Your task to perform on an android device: When is my next meeting? Image 0: 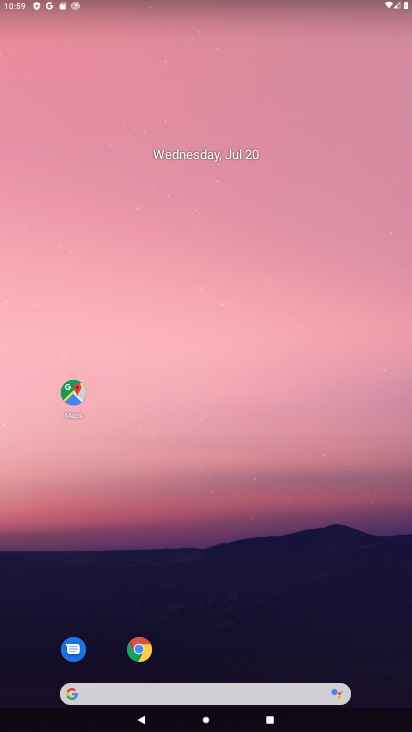
Step 0: drag from (265, 611) to (267, 327)
Your task to perform on an android device: When is my next meeting? Image 1: 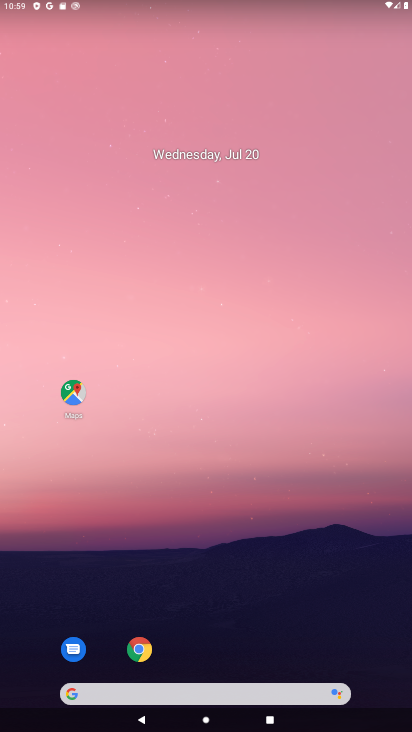
Step 1: drag from (243, 597) to (249, 282)
Your task to perform on an android device: When is my next meeting? Image 2: 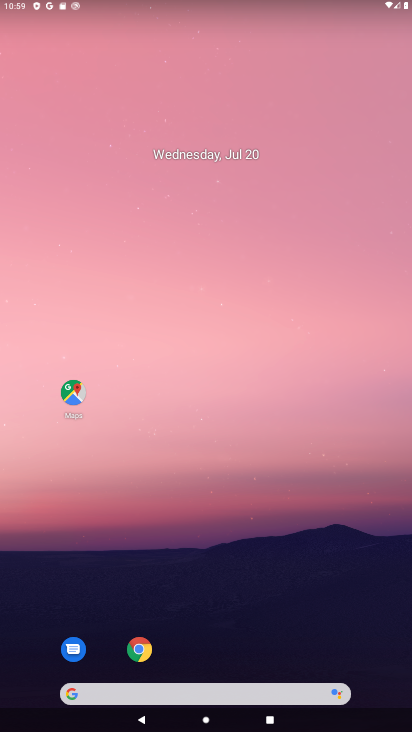
Step 2: drag from (236, 666) to (248, 260)
Your task to perform on an android device: When is my next meeting? Image 3: 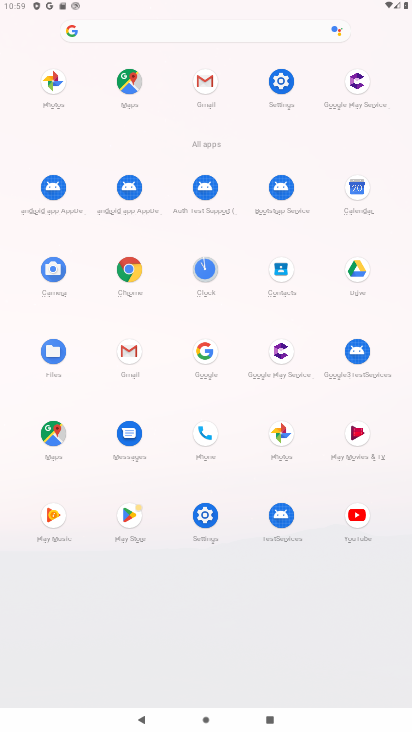
Step 3: click (354, 187)
Your task to perform on an android device: When is my next meeting? Image 4: 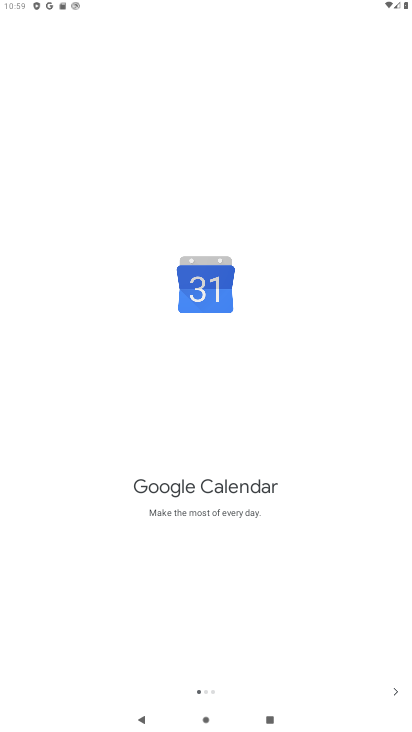
Step 4: click (389, 689)
Your task to perform on an android device: When is my next meeting? Image 5: 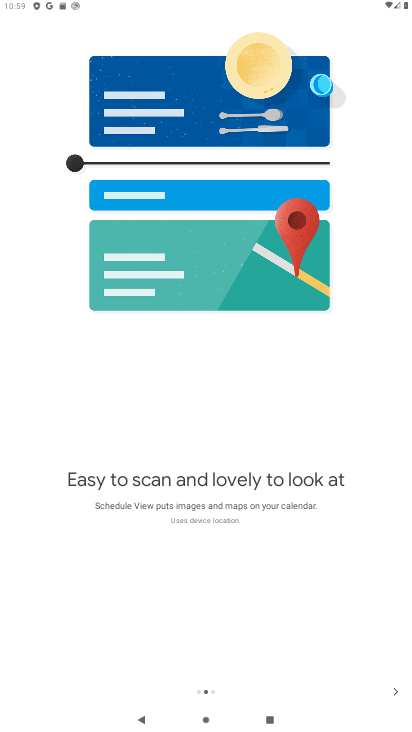
Step 5: click (389, 689)
Your task to perform on an android device: When is my next meeting? Image 6: 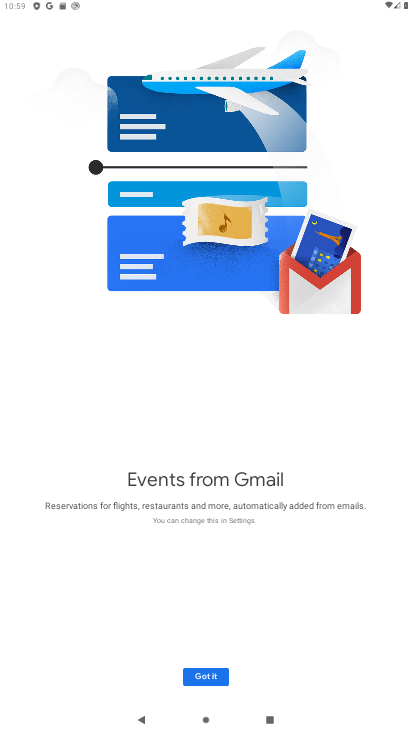
Step 6: click (205, 664)
Your task to perform on an android device: When is my next meeting? Image 7: 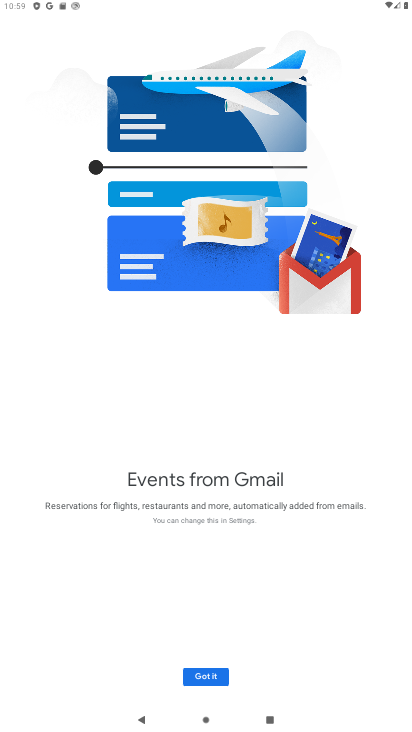
Step 7: click (214, 675)
Your task to perform on an android device: When is my next meeting? Image 8: 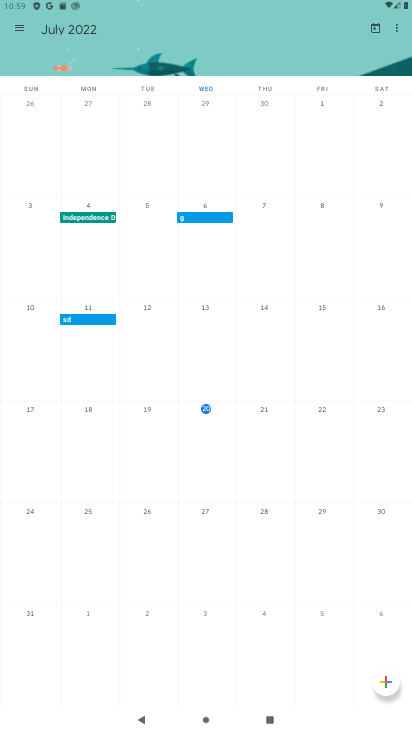
Step 8: click (263, 431)
Your task to perform on an android device: When is my next meeting? Image 9: 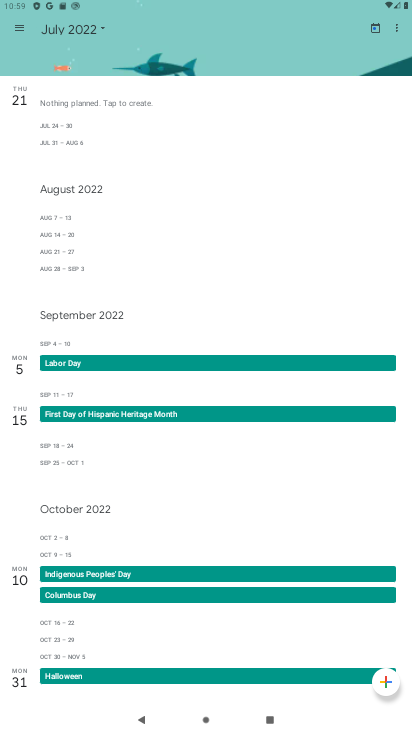
Step 9: task complete